Your task to perform on an android device: turn on improve location accuracy Image 0: 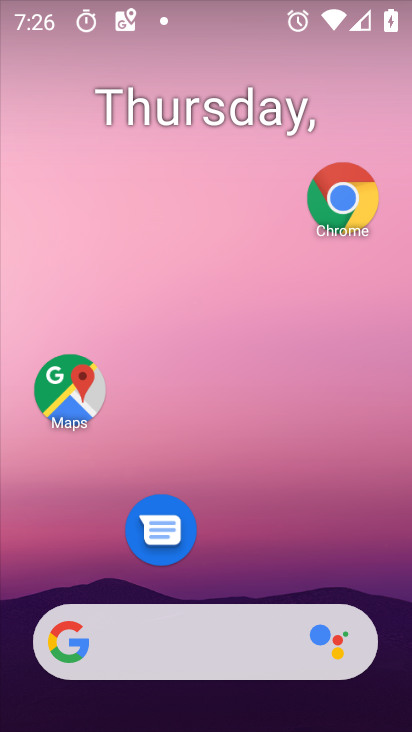
Step 0: drag from (307, 661) to (269, 234)
Your task to perform on an android device: turn on improve location accuracy Image 1: 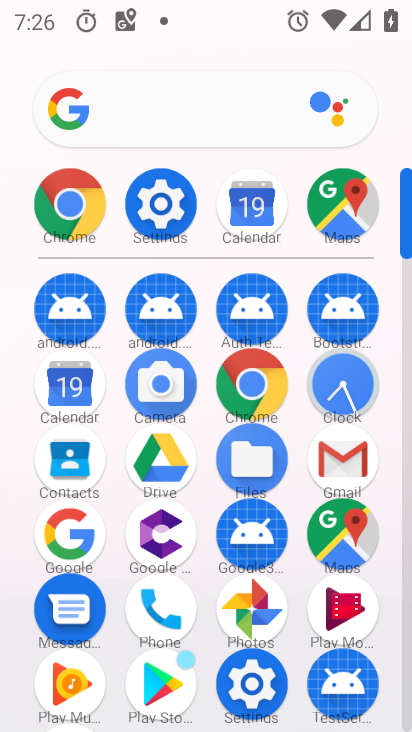
Step 1: click (143, 194)
Your task to perform on an android device: turn on improve location accuracy Image 2: 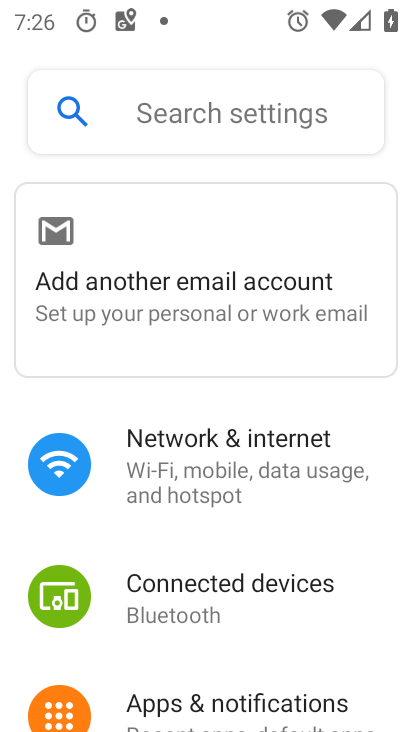
Step 2: click (251, 131)
Your task to perform on an android device: turn on improve location accuracy Image 3: 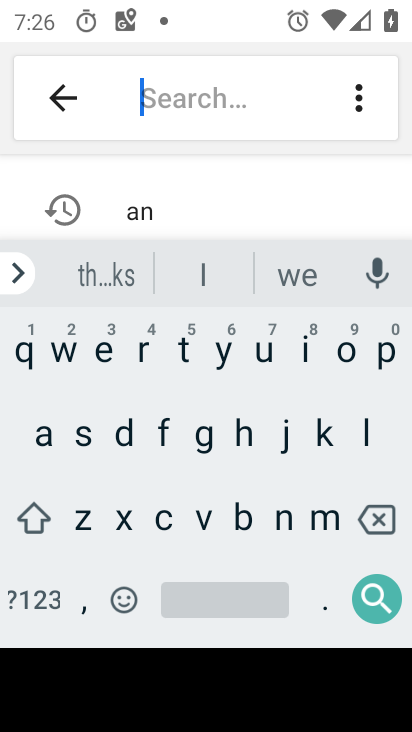
Step 3: click (375, 437)
Your task to perform on an android device: turn on improve location accuracy Image 4: 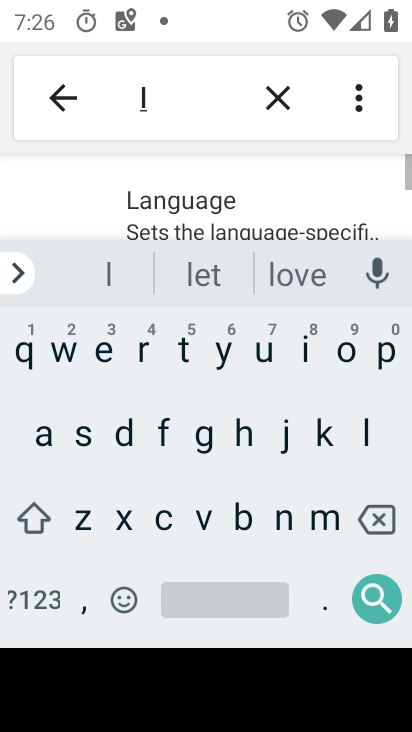
Step 4: click (336, 352)
Your task to perform on an android device: turn on improve location accuracy Image 5: 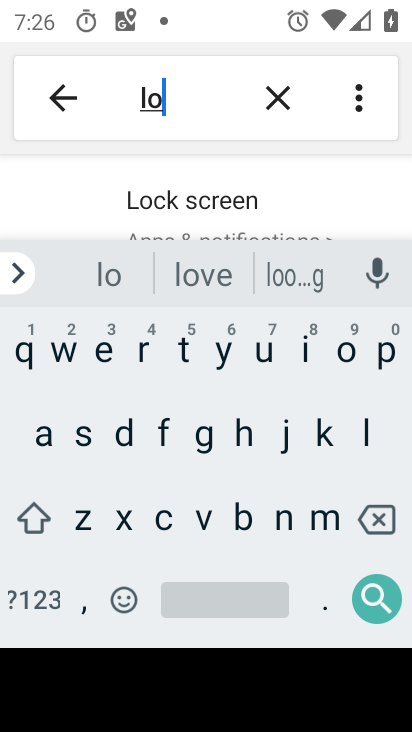
Step 5: press back button
Your task to perform on an android device: turn on improve location accuracy Image 6: 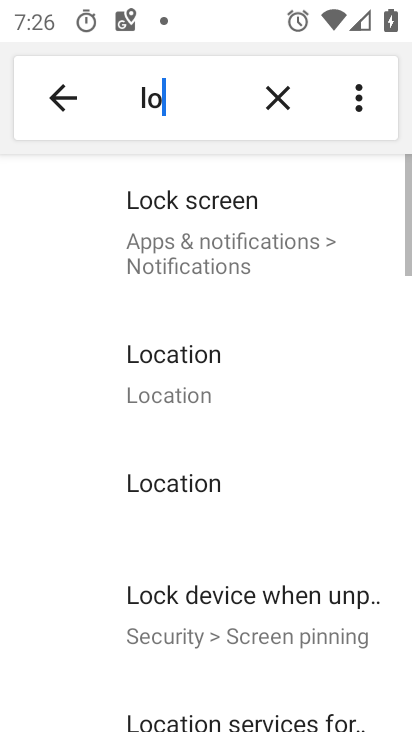
Step 6: click (201, 392)
Your task to perform on an android device: turn on improve location accuracy Image 7: 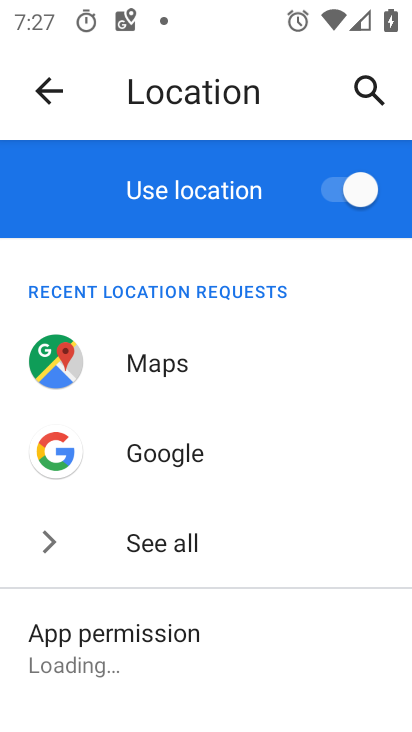
Step 7: click (335, 219)
Your task to perform on an android device: turn on improve location accuracy Image 8: 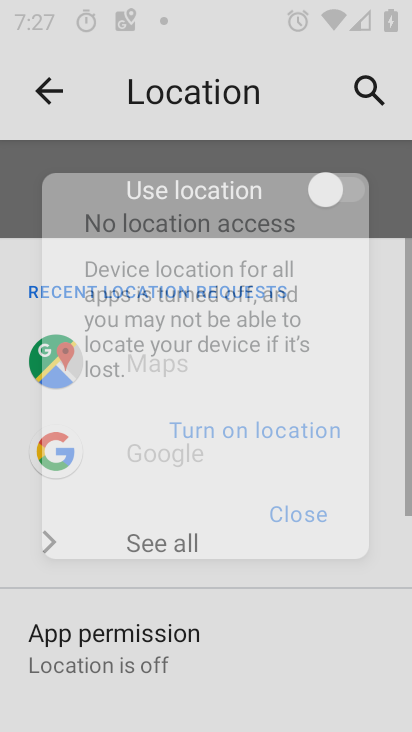
Step 8: click (340, 227)
Your task to perform on an android device: turn on improve location accuracy Image 9: 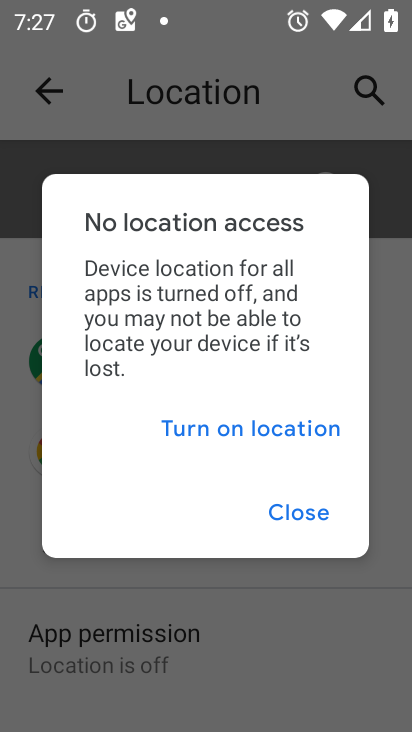
Step 9: click (243, 429)
Your task to perform on an android device: turn on improve location accuracy Image 10: 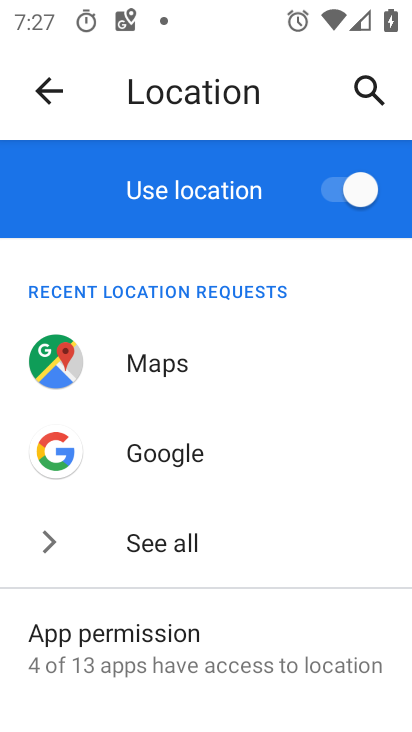
Step 10: task complete